Your task to perform on an android device: find which apps use the phone's location Image 0: 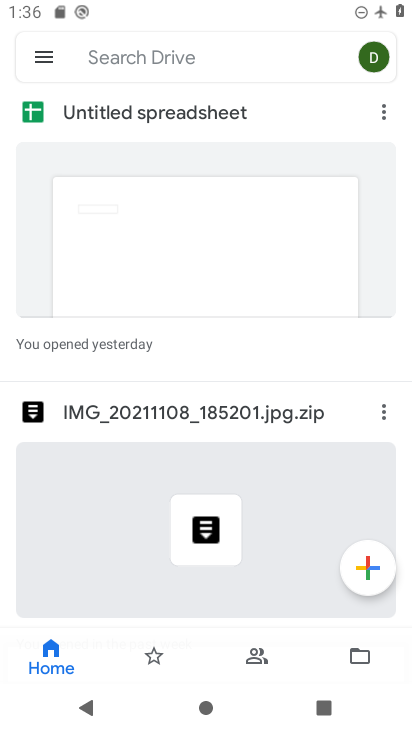
Step 0: press home button
Your task to perform on an android device: find which apps use the phone's location Image 1: 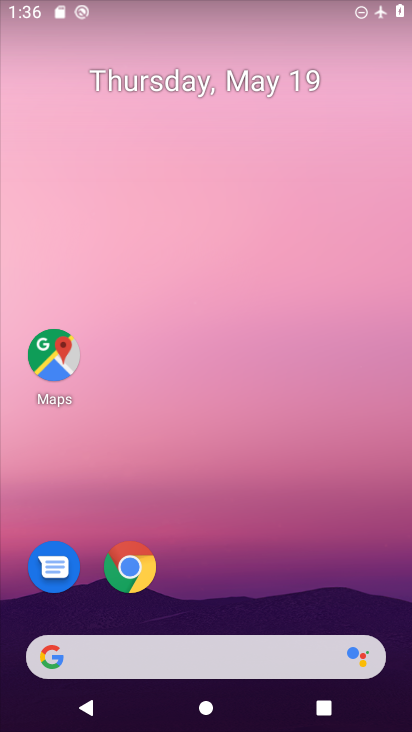
Step 1: drag from (247, 544) to (240, 17)
Your task to perform on an android device: find which apps use the phone's location Image 2: 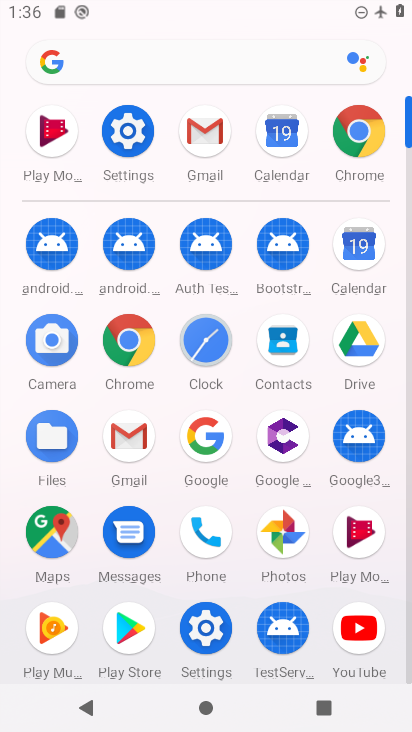
Step 2: click (135, 137)
Your task to perform on an android device: find which apps use the phone's location Image 3: 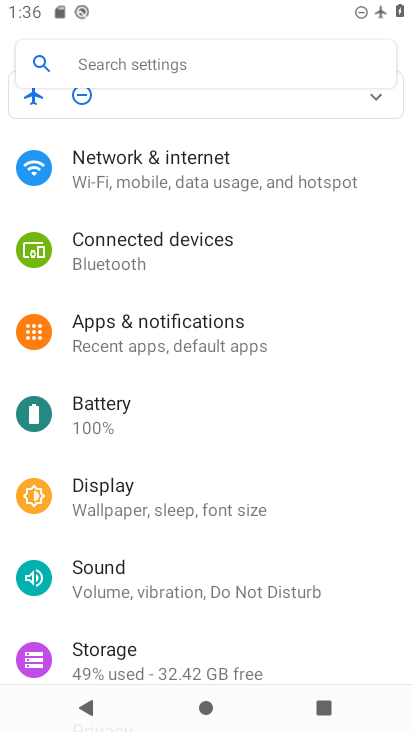
Step 3: drag from (211, 550) to (264, 148)
Your task to perform on an android device: find which apps use the phone's location Image 4: 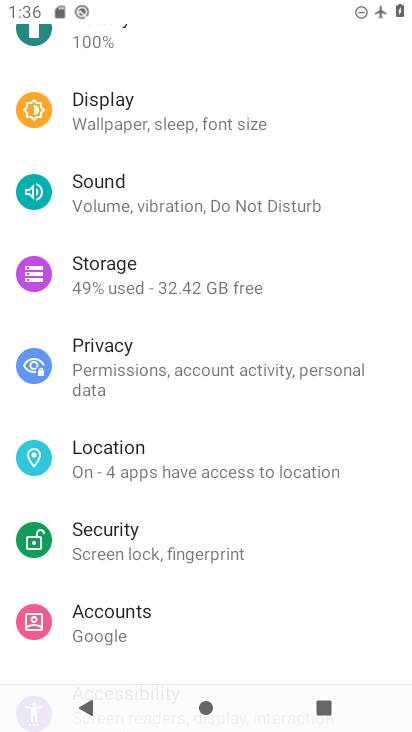
Step 4: click (208, 462)
Your task to perform on an android device: find which apps use the phone's location Image 5: 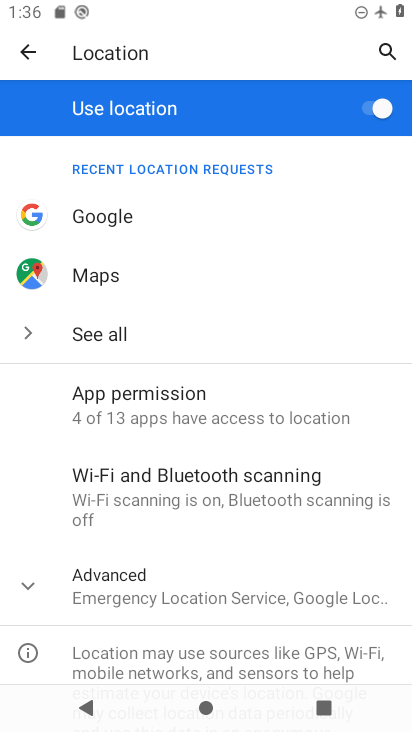
Step 5: click (189, 413)
Your task to perform on an android device: find which apps use the phone's location Image 6: 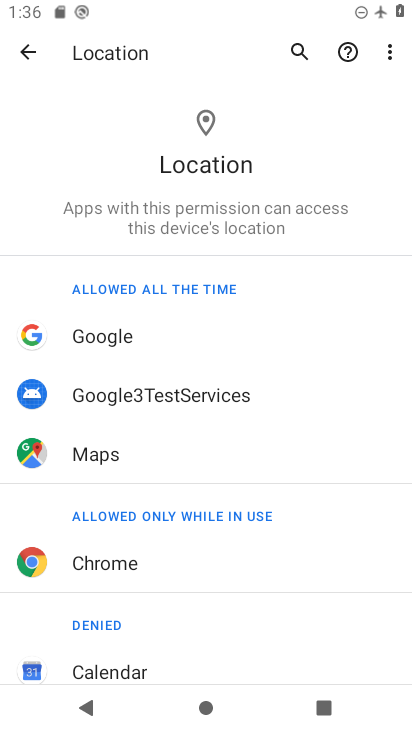
Step 6: task complete